Your task to perform on an android device: Do I have any events tomorrow? Image 0: 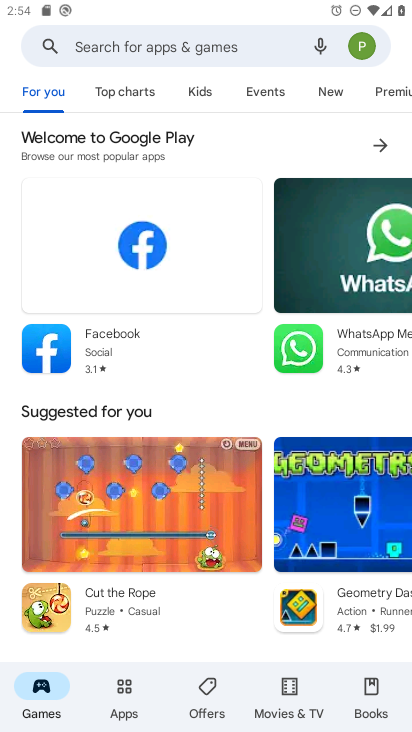
Step 0: press home button
Your task to perform on an android device: Do I have any events tomorrow? Image 1: 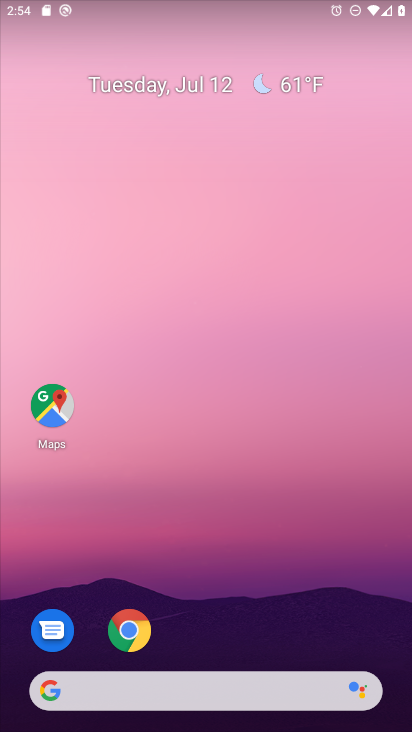
Step 1: drag from (192, 652) to (247, 239)
Your task to perform on an android device: Do I have any events tomorrow? Image 2: 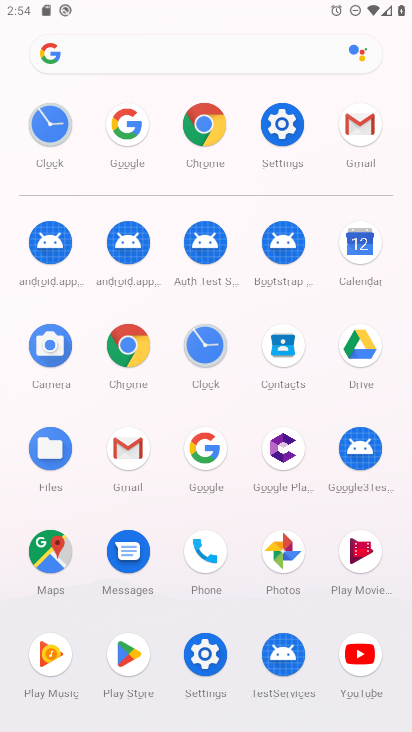
Step 2: click (361, 265)
Your task to perform on an android device: Do I have any events tomorrow? Image 3: 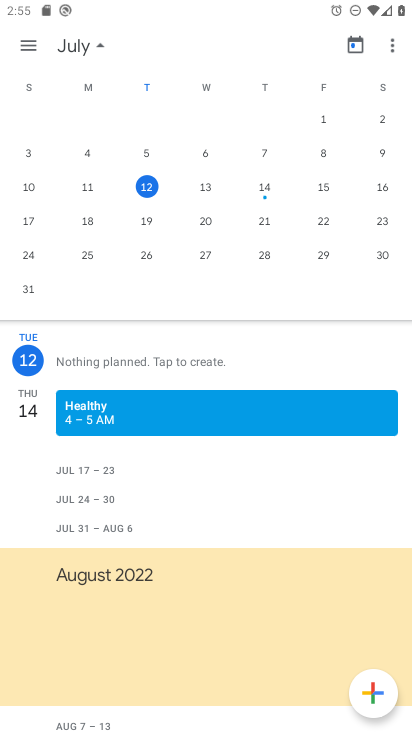
Step 3: task complete